Your task to perform on an android device: Open eBay Image 0: 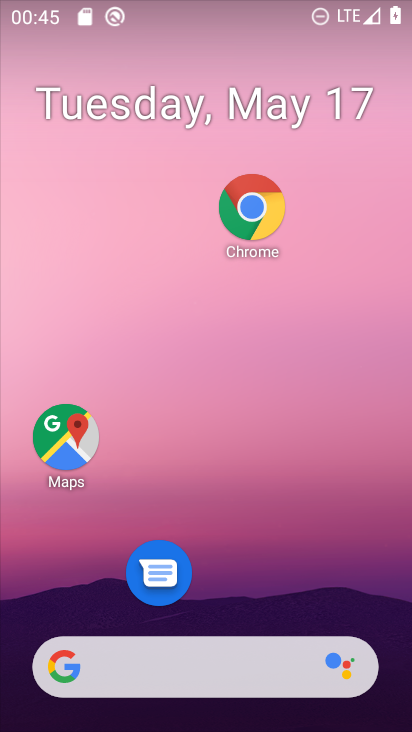
Step 0: drag from (141, 676) to (82, 87)
Your task to perform on an android device: Open eBay Image 1: 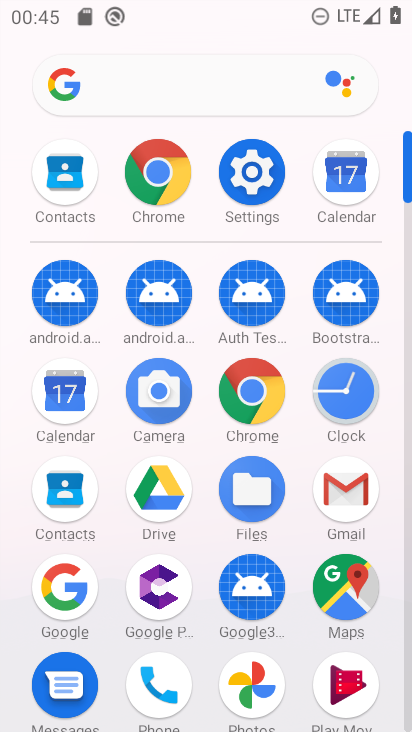
Step 1: click (263, 393)
Your task to perform on an android device: Open eBay Image 2: 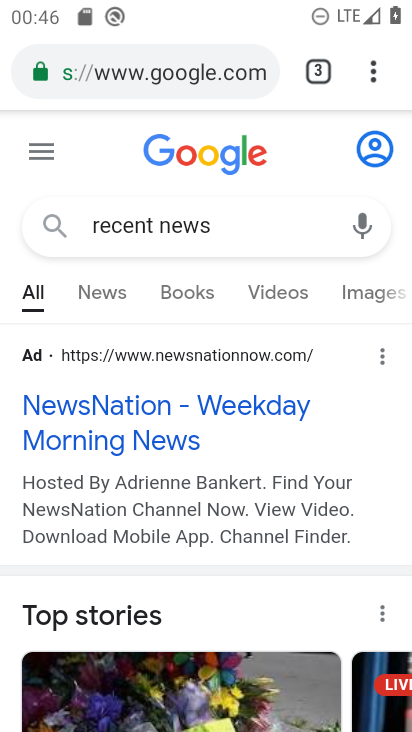
Step 2: click (231, 68)
Your task to perform on an android device: Open eBay Image 3: 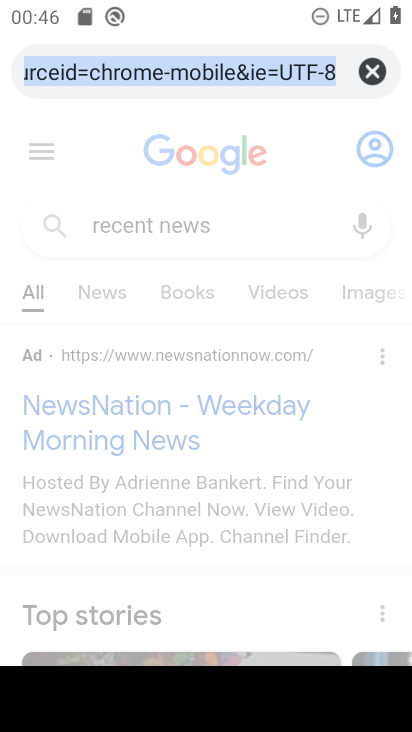
Step 3: click (381, 61)
Your task to perform on an android device: Open eBay Image 4: 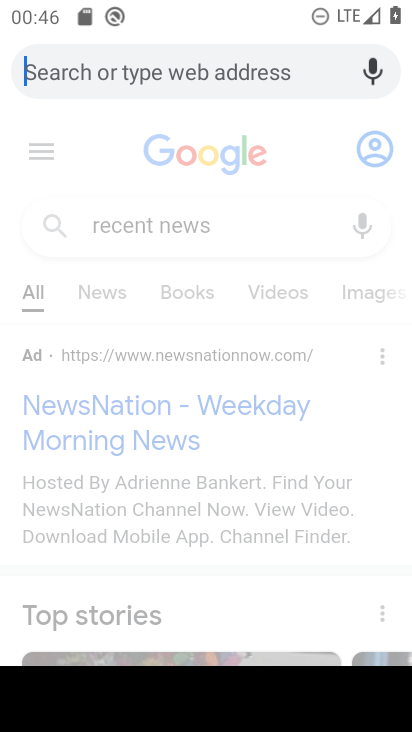
Step 4: type "ebay"
Your task to perform on an android device: Open eBay Image 5: 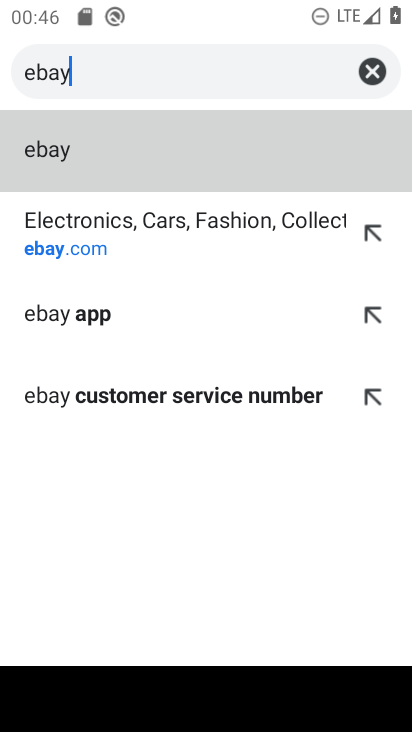
Step 5: click (315, 240)
Your task to perform on an android device: Open eBay Image 6: 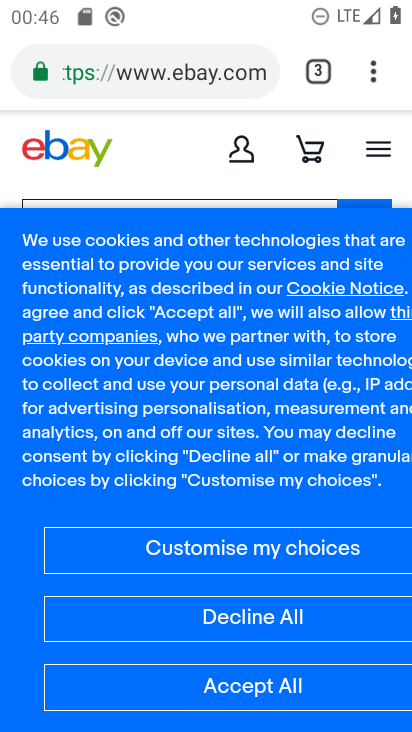
Step 6: task complete